Your task to perform on an android device: When is my next meeting? Image 0: 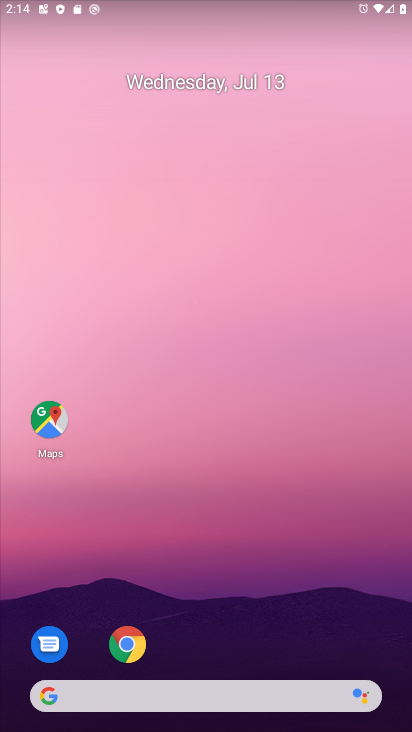
Step 0: drag from (216, 568) to (338, 6)
Your task to perform on an android device: When is my next meeting? Image 1: 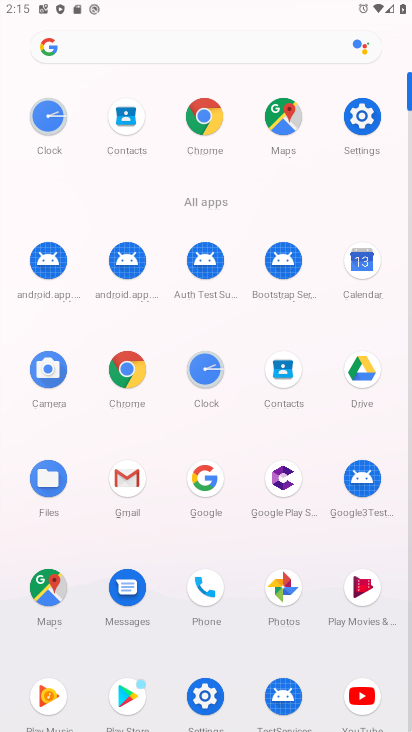
Step 1: click (138, 32)
Your task to perform on an android device: When is my next meeting? Image 2: 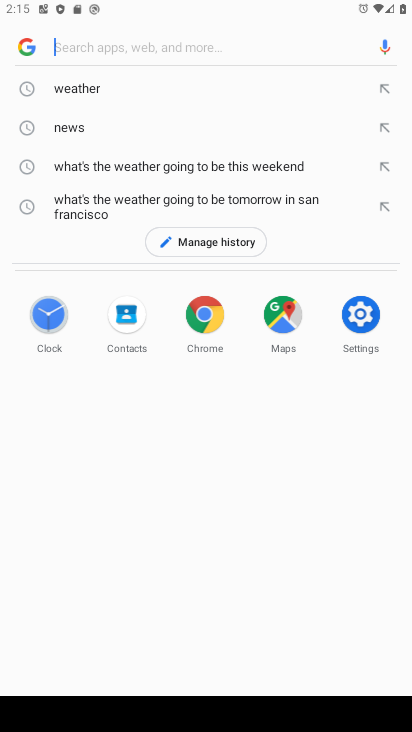
Step 2: press back button
Your task to perform on an android device: When is my next meeting? Image 3: 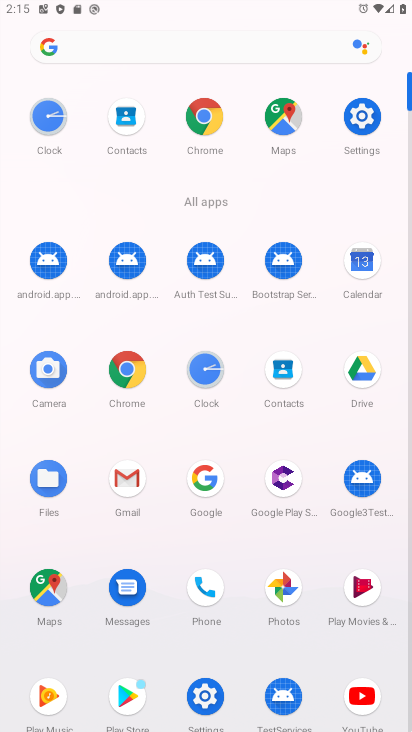
Step 3: click (348, 270)
Your task to perform on an android device: When is my next meeting? Image 4: 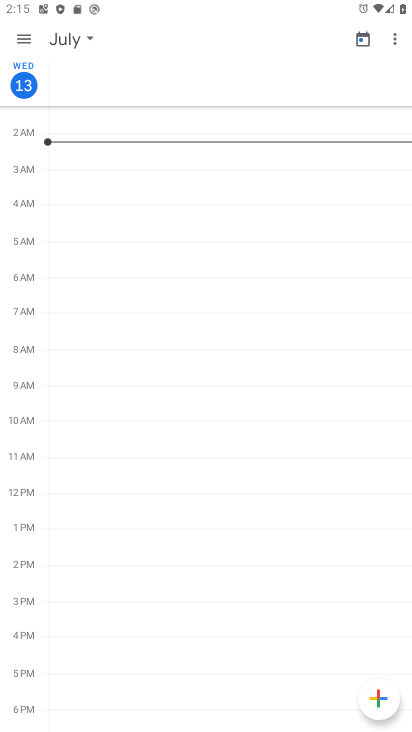
Step 4: click (22, 35)
Your task to perform on an android device: When is my next meeting? Image 5: 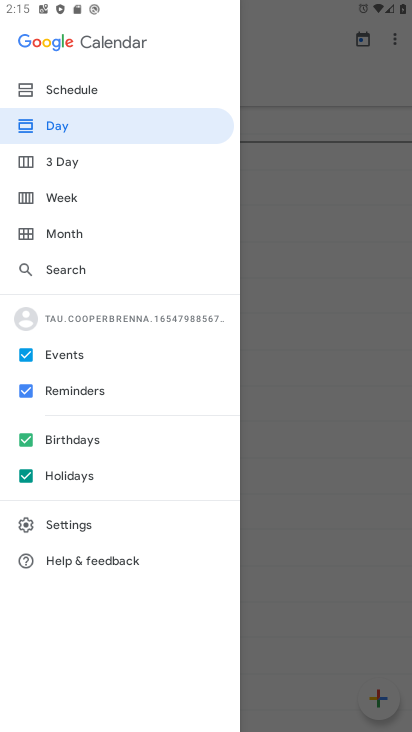
Step 5: click (70, 93)
Your task to perform on an android device: When is my next meeting? Image 6: 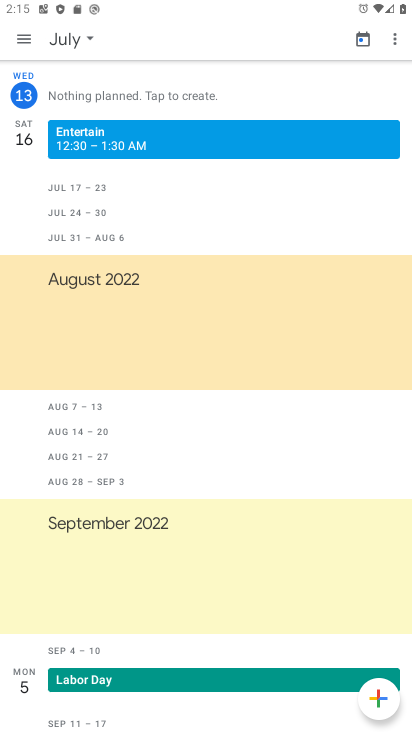
Step 6: task complete